Your task to perform on an android device: check google app version Image 0: 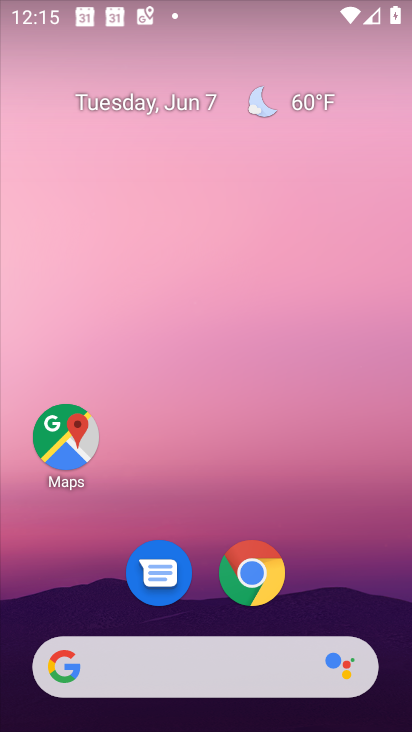
Step 0: press home button
Your task to perform on an android device: check google app version Image 1: 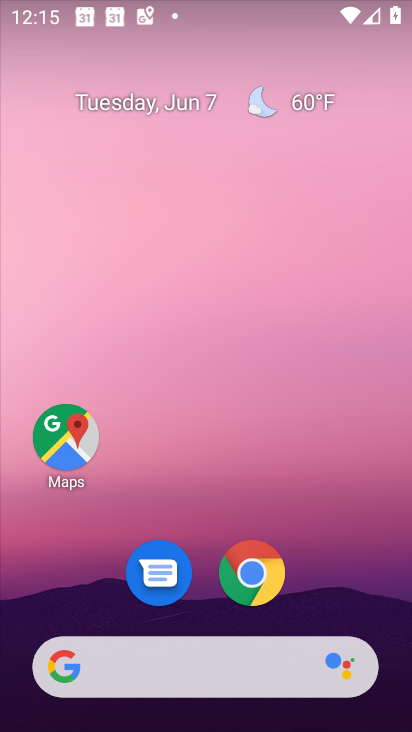
Step 1: drag from (367, 650) to (323, 168)
Your task to perform on an android device: check google app version Image 2: 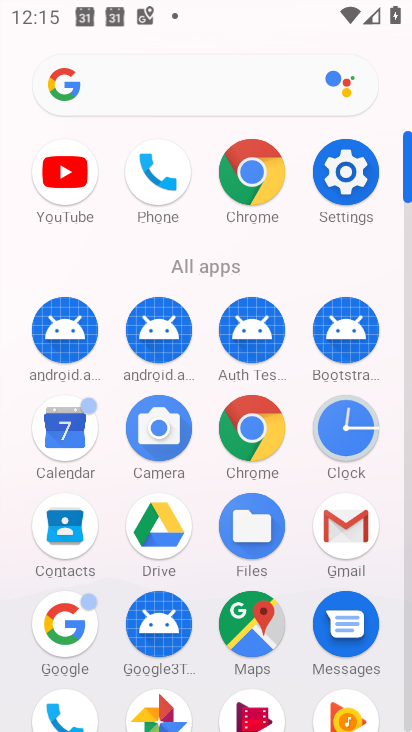
Step 2: click (406, 702)
Your task to perform on an android device: check google app version Image 3: 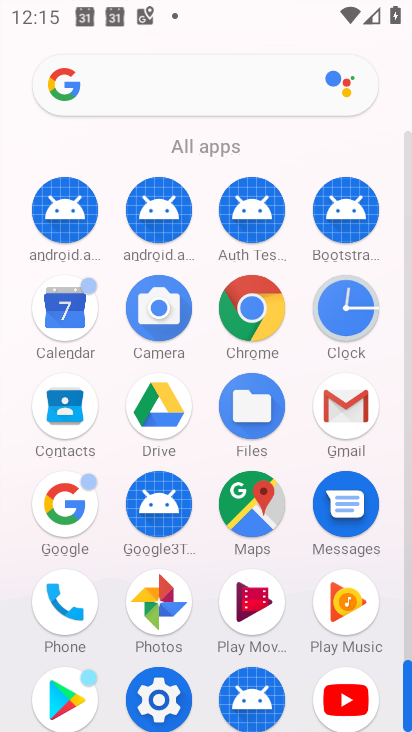
Step 3: click (72, 531)
Your task to perform on an android device: check google app version Image 4: 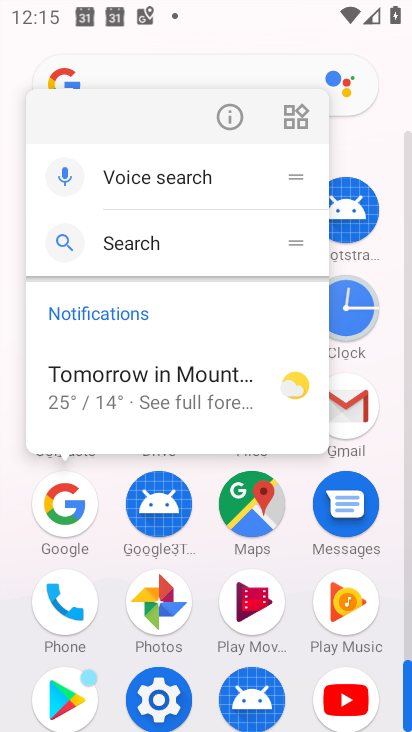
Step 4: click (219, 122)
Your task to perform on an android device: check google app version Image 5: 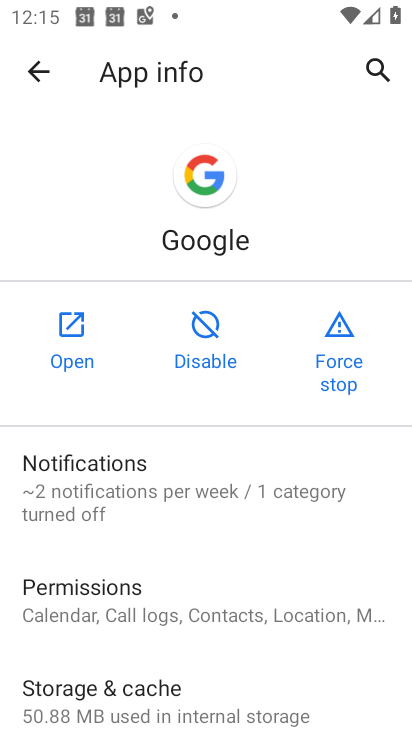
Step 5: drag from (288, 619) to (213, 308)
Your task to perform on an android device: check google app version Image 6: 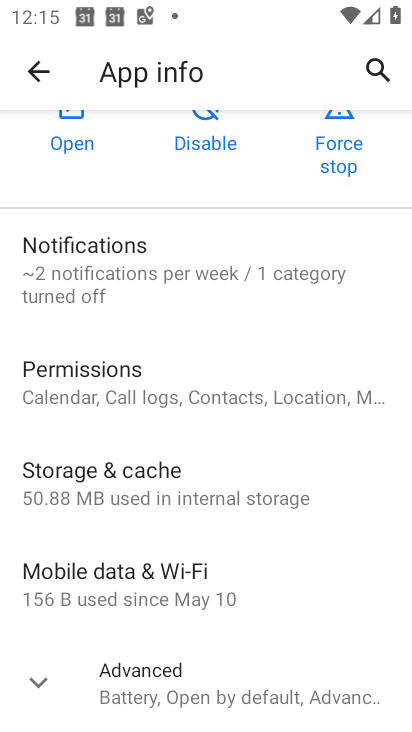
Step 6: drag from (174, 612) to (162, 364)
Your task to perform on an android device: check google app version Image 7: 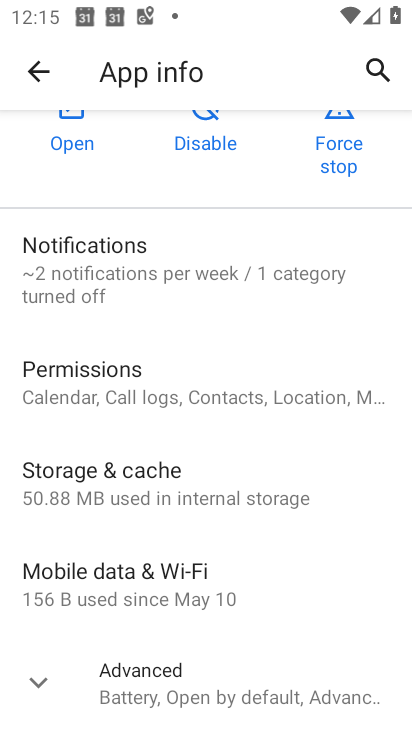
Step 7: click (255, 678)
Your task to perform on an android device: check google app version Image 8: 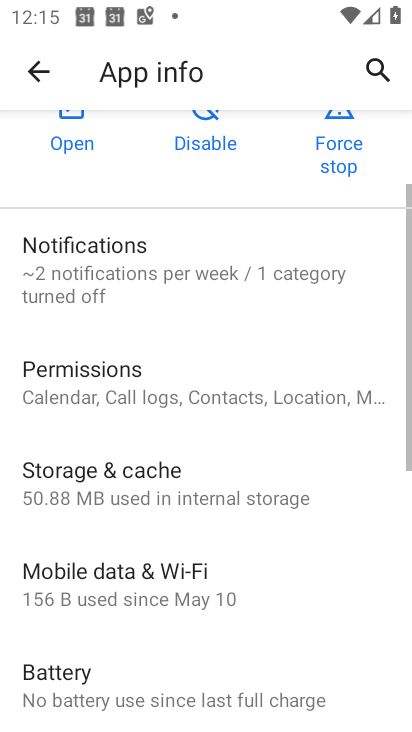
Step 8: task complete